Your task to perform on an android device: see creations saved in the google photos Image 0: 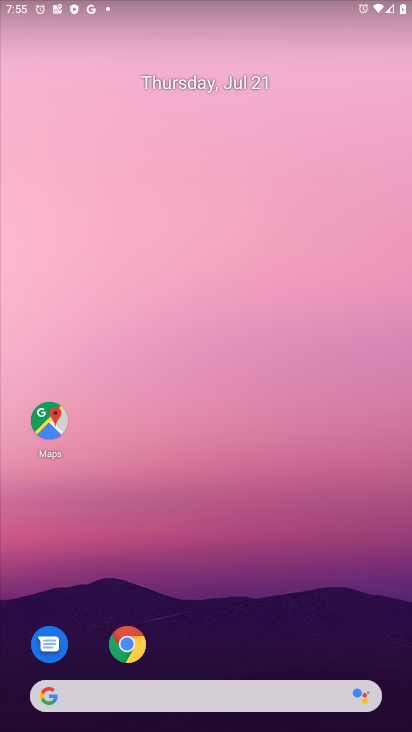
Step 0: drag from (257, 586) to (242, 103)
Your task to perform on an android device: see creations saved in the google photos Image 1: 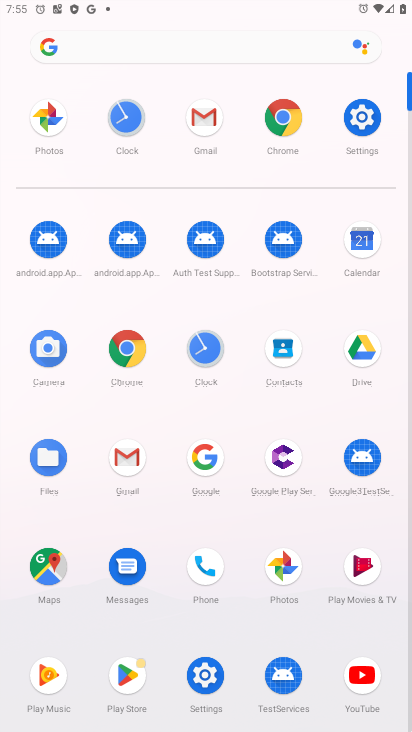
Step 1: click (287, 561)
Your task to perform on an android device: see creations saved in the google photos Image 2: 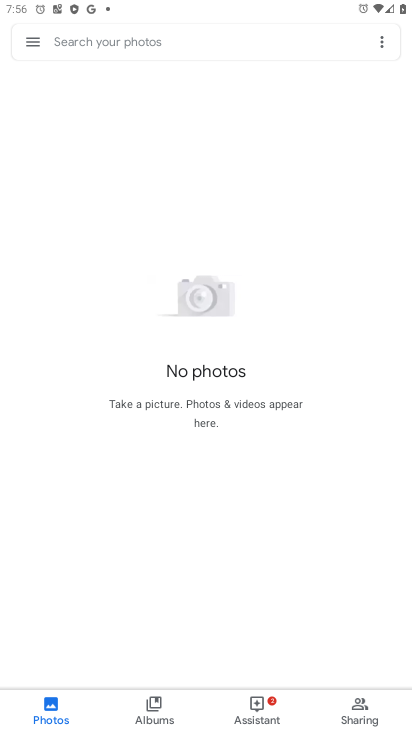
Step 2: task complete